Your task to perform on an android device: Turn off the flashlight Image 0: 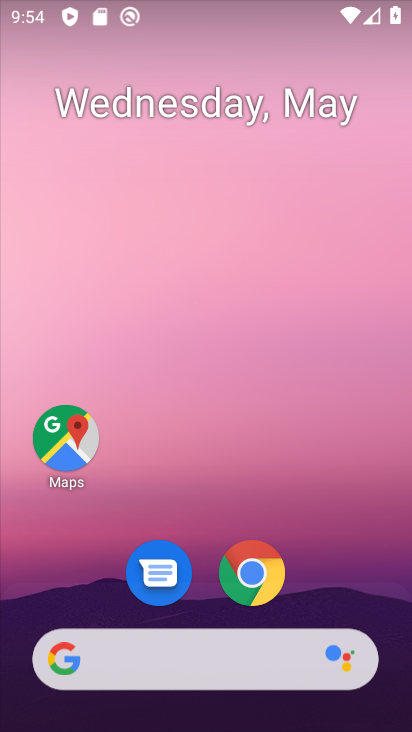
Step 0: drag from (280, 686) to (171, 66)
Your task to perform on an android device: Turn off the flashlight Image 1: 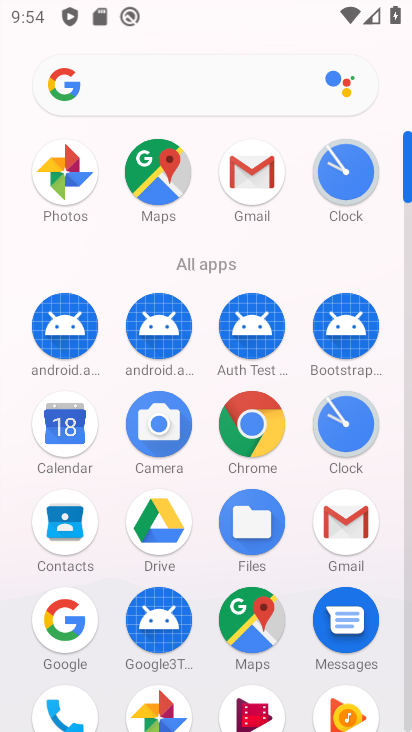
Step 1: drag from (192, 379) to (174, 38)
Your task to perform on an android device: Turn off the flashlight Image 2: 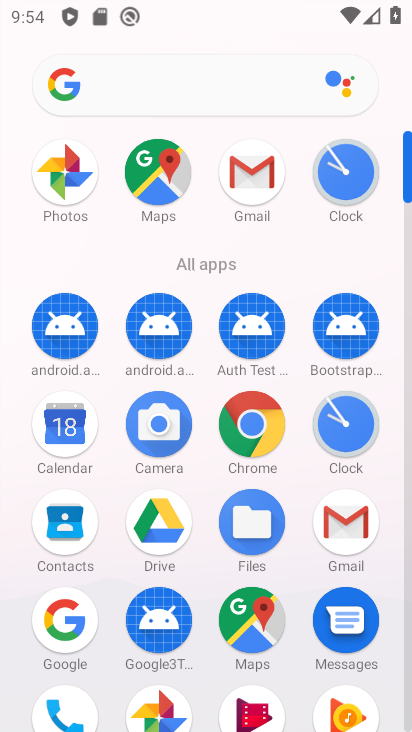
Step 2: drag from (142, 533) to (159, 128)
Your task to perform on an android device: Turn off the flashlight Image 3: 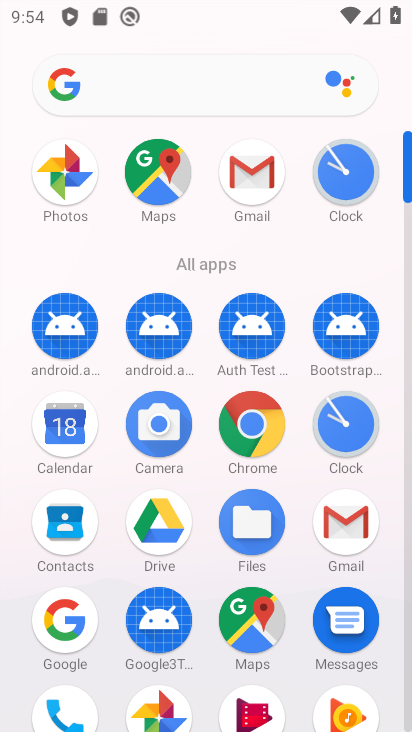
Step 3: click (276, 192)
Your task to perform on an android device: Turn off the flashlight Image 4: 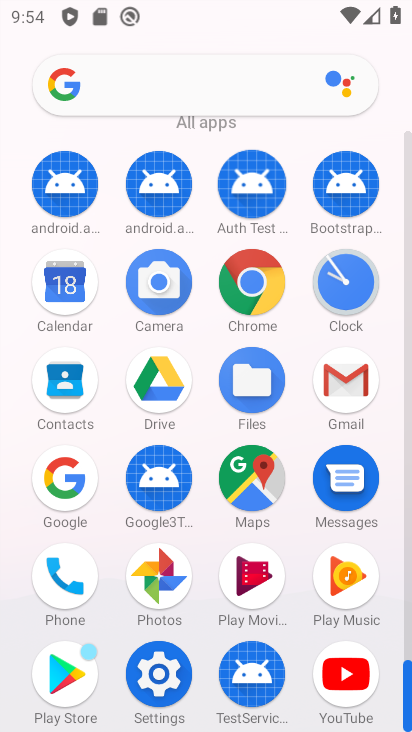
Step 4: task complete